Your task to perform on an android device: open sync settings in chrome Image 0: 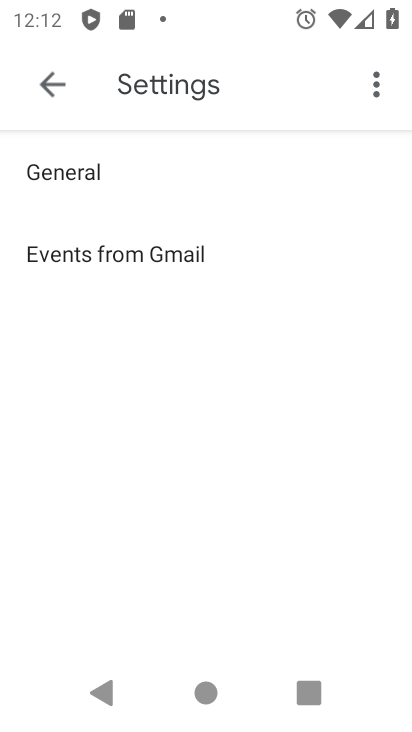
Step 0: press home button
Your task to perform on an android device: open sync settings in chrome Image 1: 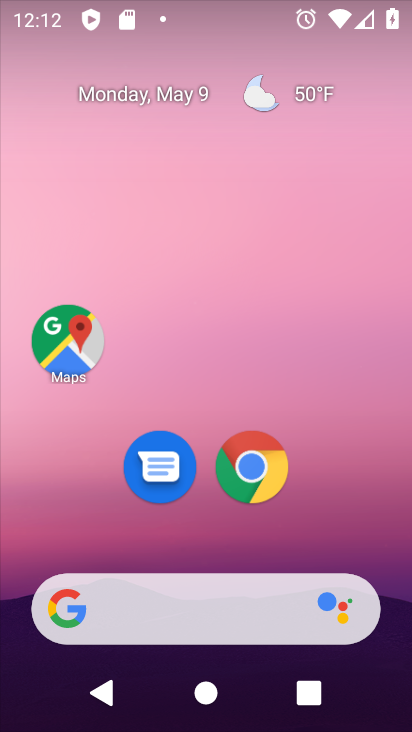
Step 1: click (248, 460)
Your task to perform on an android device: open sync settings in chrome Image 2: 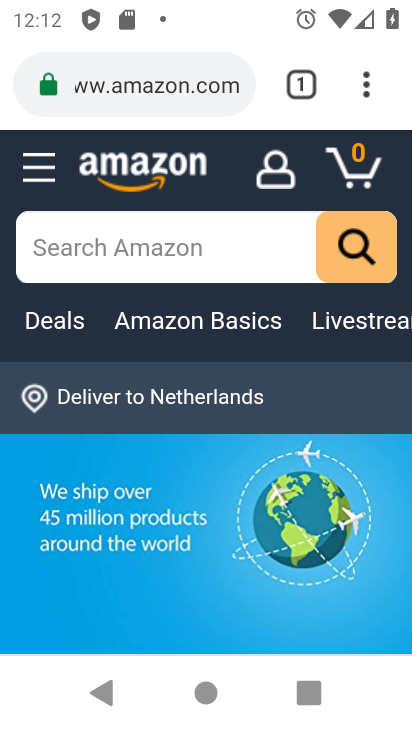
Step 2: click (363, 80)
Your task to perform on an android device: open sync settings in chrome Image 3: 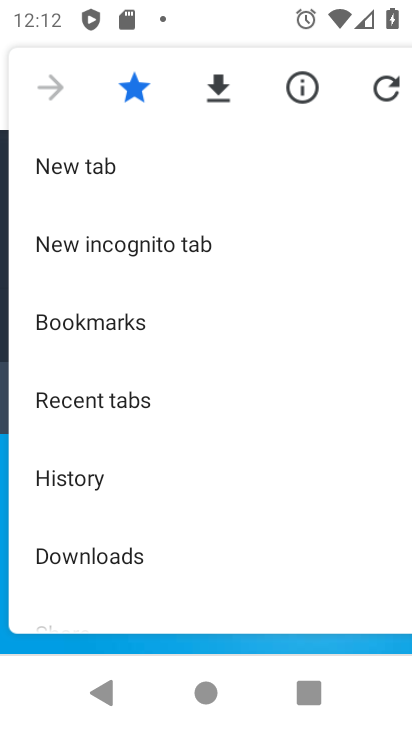
Step 3: drag from (184, 507) to (231, 81)
Your task to perform on an android device: open sync settings in chrome Image 4: 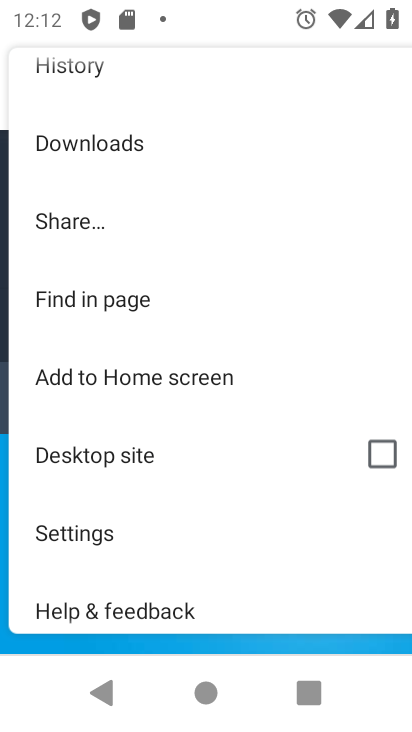
Step 4: click (134, 525)
Your task to perform on an android device: open sync settings in chrome Image 5: 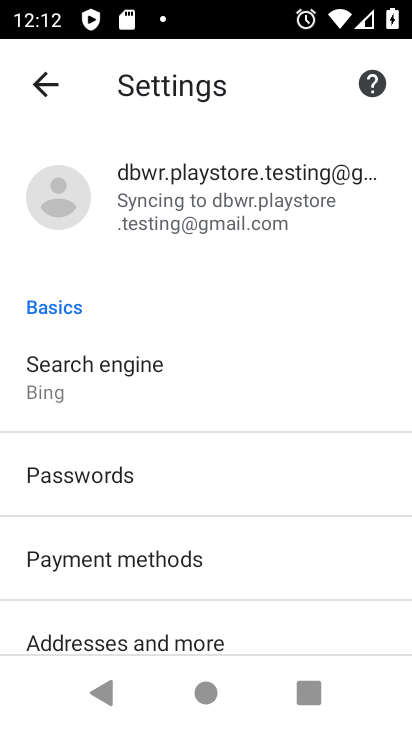
Step 5: drag from (250, 617) to (272, 151)
Your task to perform on an android device: open sync settings in chrome Image 6: 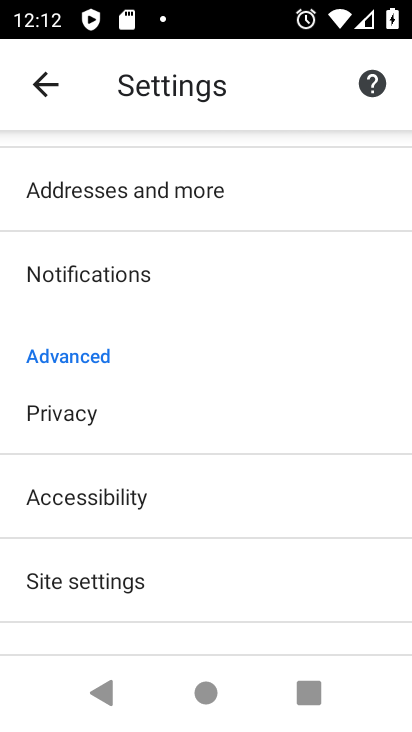
Step 6: drag from (229, 574) to (266, 239)
Your task to perform on an android device: open sync settings in chrome Image 7: 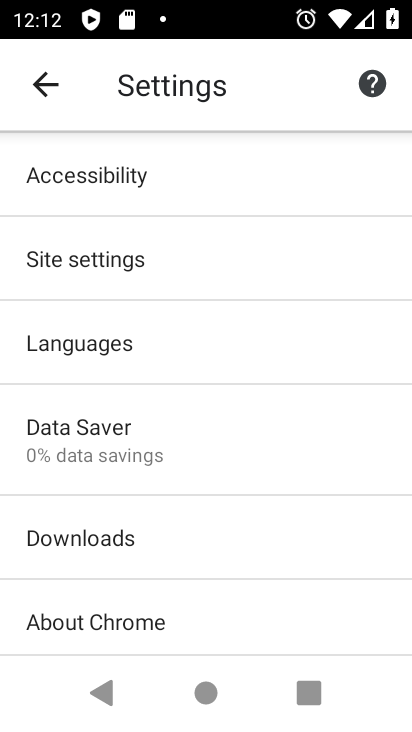
Step 7: drag from (206, 178) to (225, 659)
Your task to perform on an android device: open sync settings in chrome Image 8: 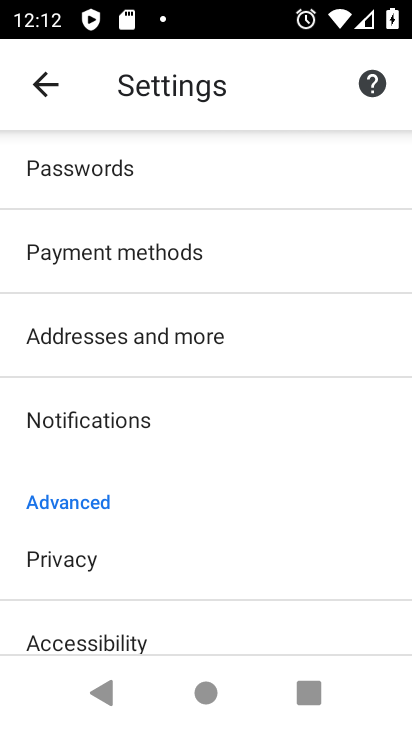
Step 8: drag from (198, 202) to (243, 664)
Your task to perform on an android device: open sync settings in chrome Image 9: 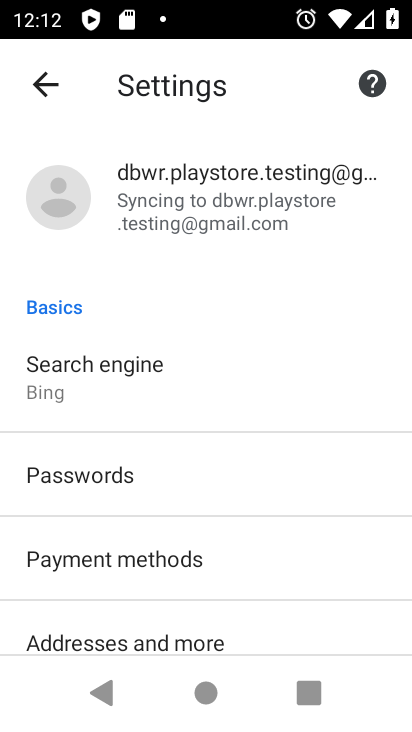
Step 9: click (215, 203)
Your task to perform on an android device: open sync settings in chrome Image 10: 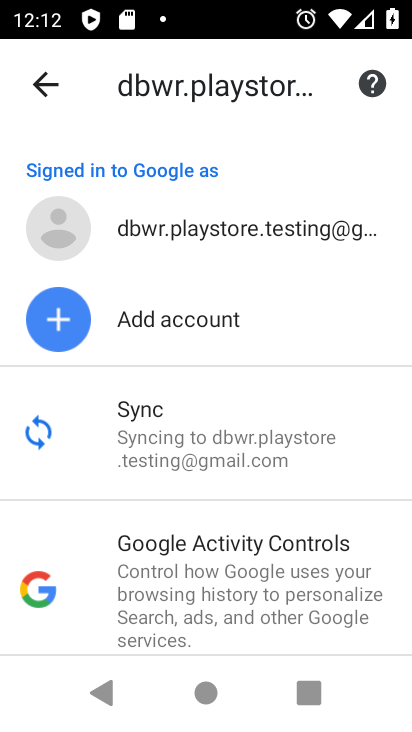
Step 10: click (224, 421)
Your task to perform on an android device: open sync settings in chrome Image 11: 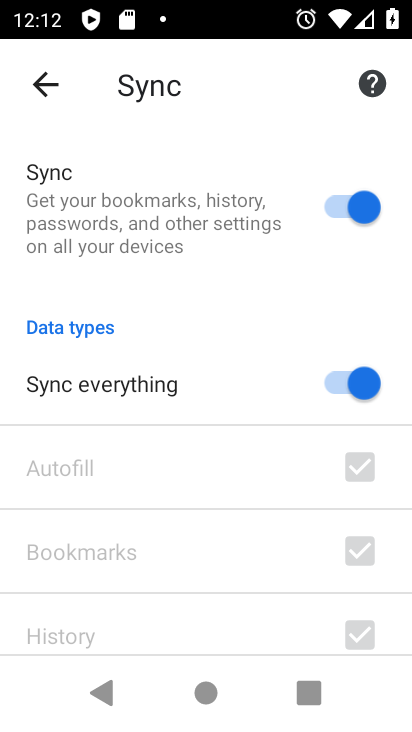
Step 11: task complete